Your task to perform on an android device: open device folders in google photos Image 0: 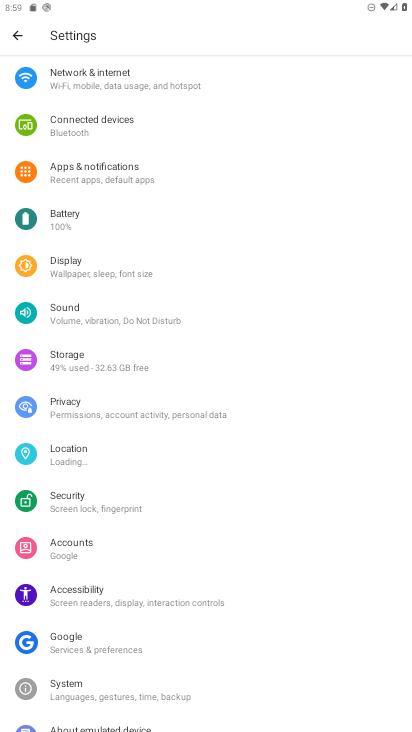
Step 0: press home button
Your task to perform on an android device: open device folders in google photos Image 1: 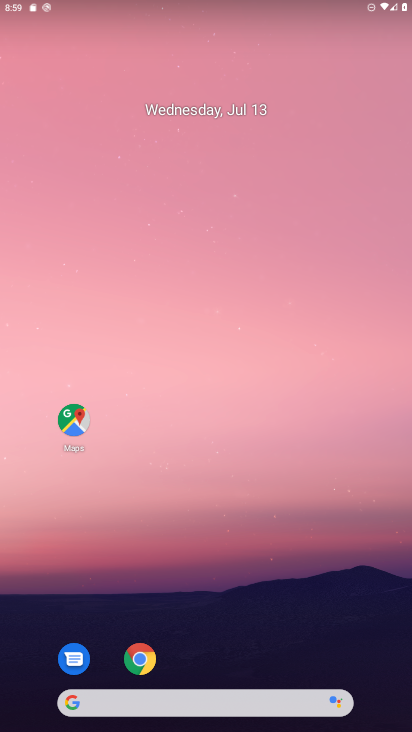
Step 1: drag from (243, 649) to (238, 203)
Your task to perform on an android device: open device folders in google photos Image 2: 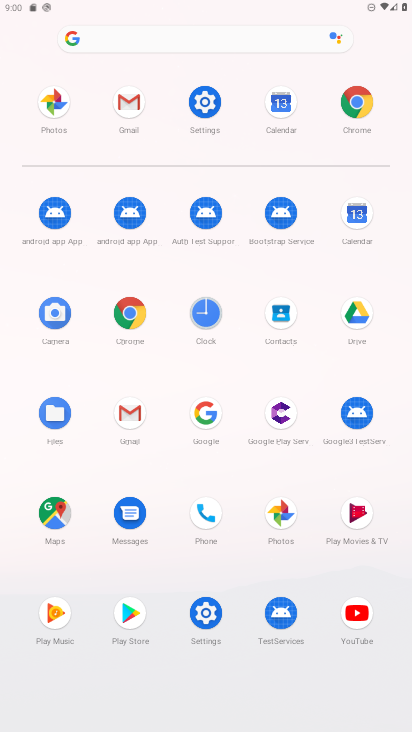
Step 2: click (282, 511)
Your task to perform on an android device: open device folders in google photos Image 3: 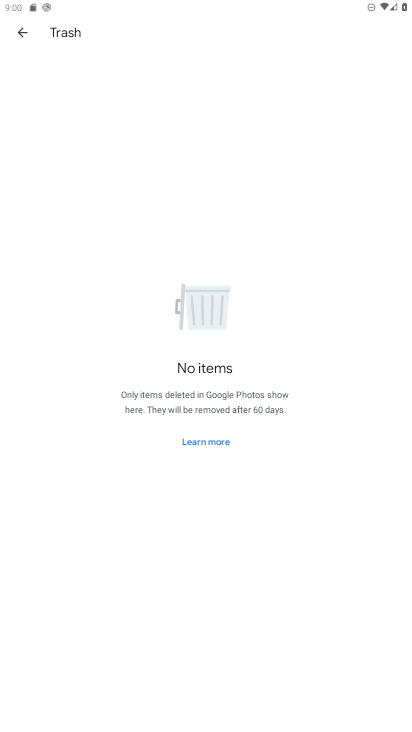
Step 3: press back button
Your task to perform on an android device: open device folders in google photos Image 4: 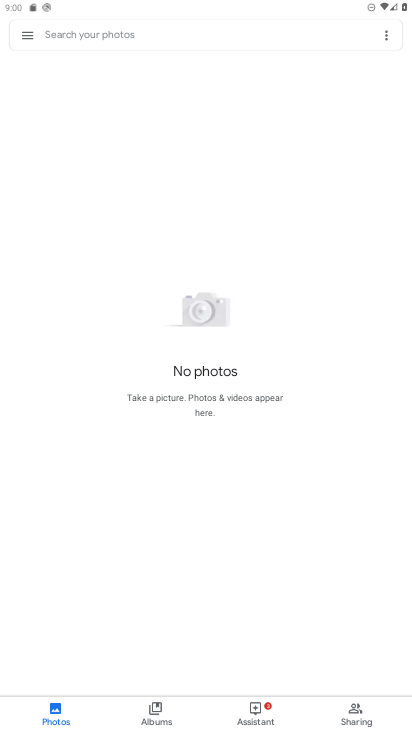
Step 4: click (21, 33)
Your task to perform on an android device: open device folders in google photos Image 5: 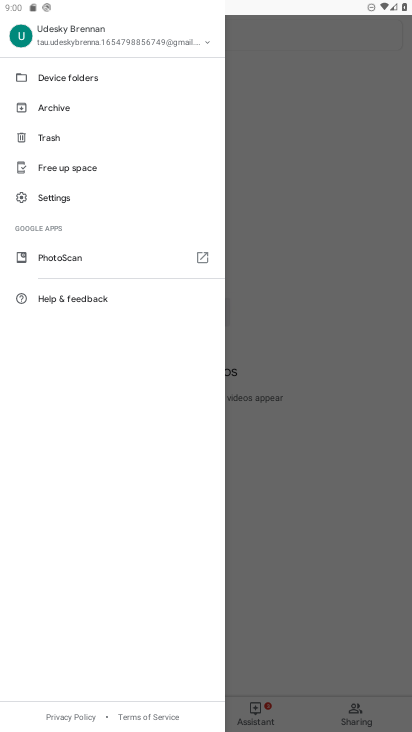
Step 5: click (60, 82)
Your task to perform on an android device: open device folders in google photos Image 6: 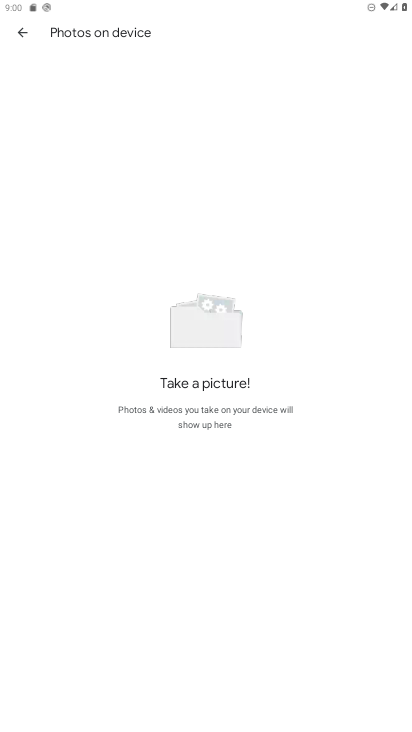
Step 6: task complete